Your task to perform on an android device: turn on translation in the chrome app Image 0: 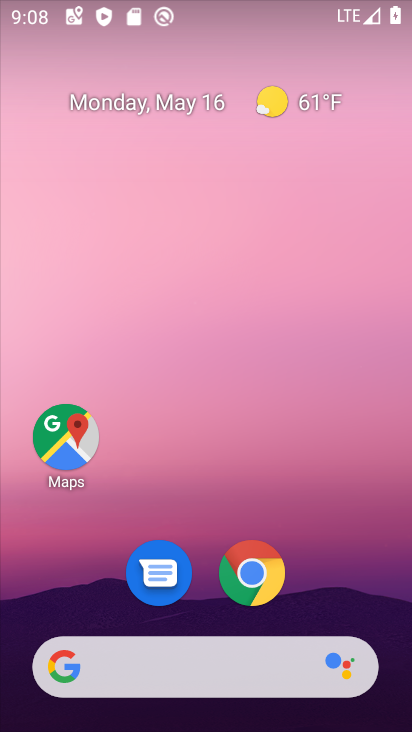
Step 0: click (247, 573)
Your task to perform on an android device: turn on translation in the chrome app Image 1: 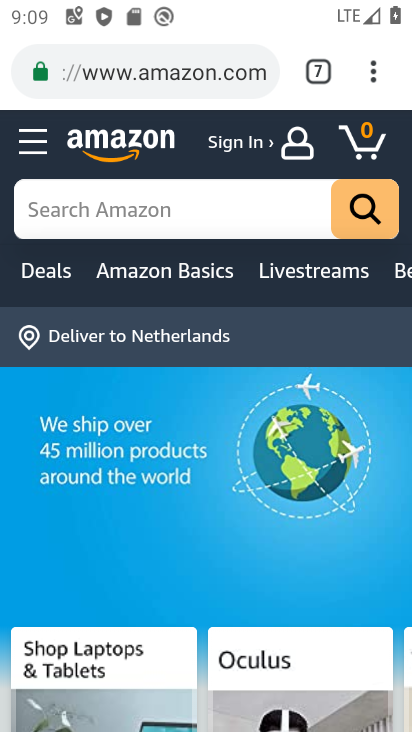
Step 1: click (375, 80)
Your task to perform on an android device: turn on translation in the chrome app Image 2: 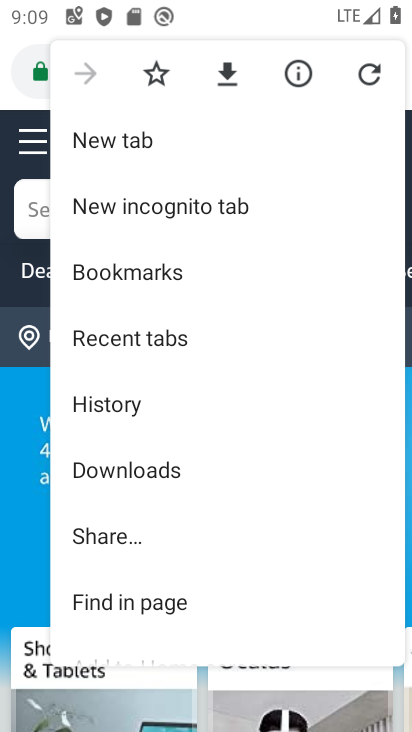
Step 2: drag from (130, 641) to (100, 266)
Your task to perform on an android device: turn on translation in the chrome app Image 3: 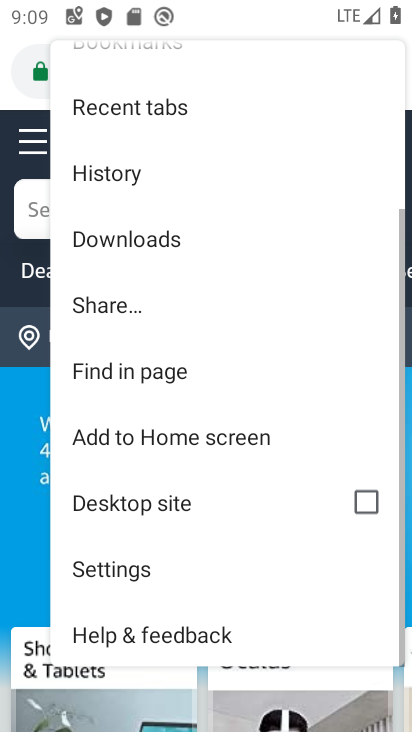
Step 3: click (107, 562)
Your task to perform on an android device: turn on translation in the chrome app Image 4: 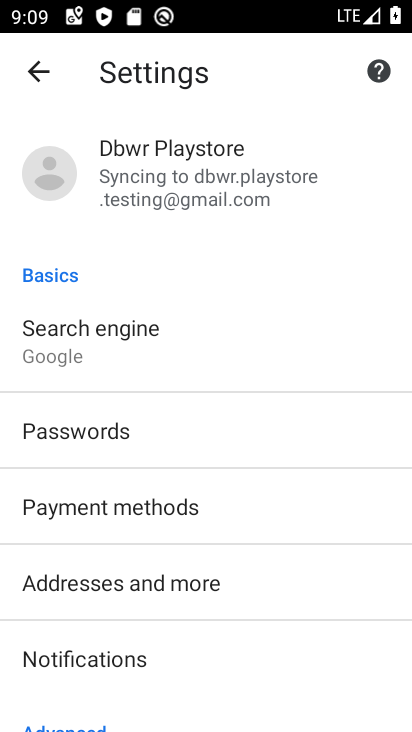
Step 4: drag from (133, 635) to (124, 174)
Your task to perform on an android device: turn on translation in the chrome app Image 5: 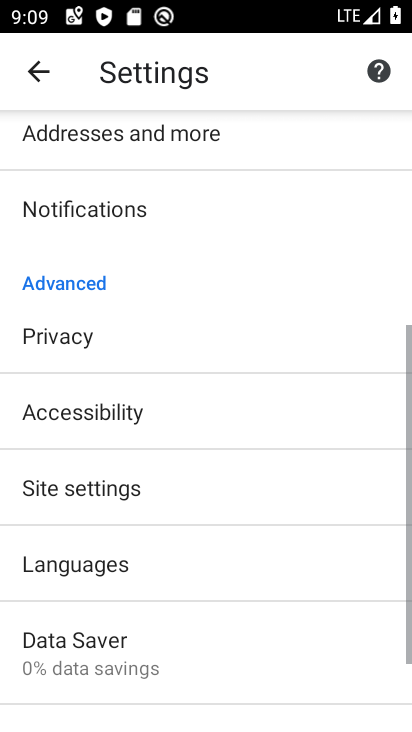
Step 5: click (89, 571)
Your task to perform on an android device: turn on translation in the chrome app Image 6: 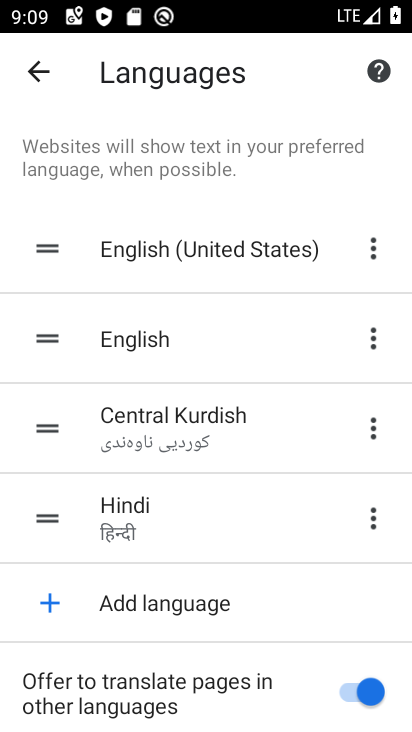
Step 6: task complete